Your task to perform on an android device: toggle wifi Image 0: 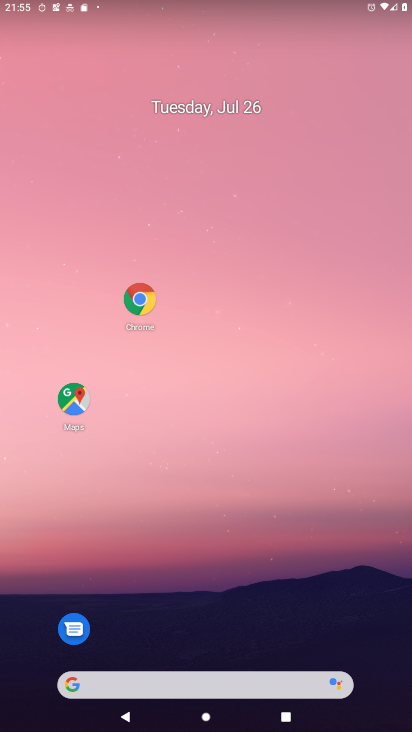
Step 0: click (204, 97)
Your task to perform on an android device: toggle wifi Image 1: 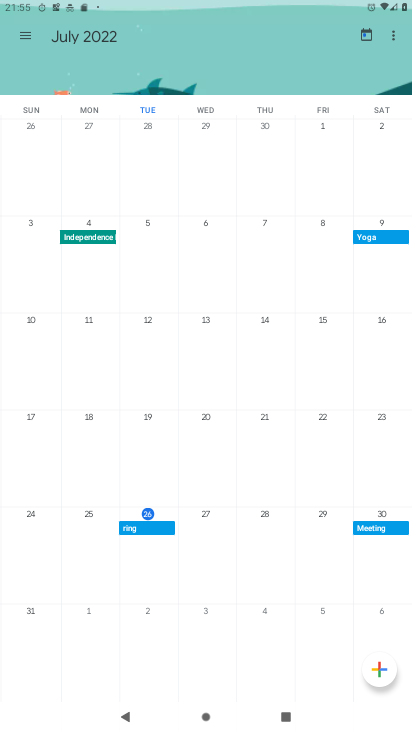
Step 1: drag from (136, 26) to (186, 71)
Your task to perform on an android device: toggle wifi Image 2: 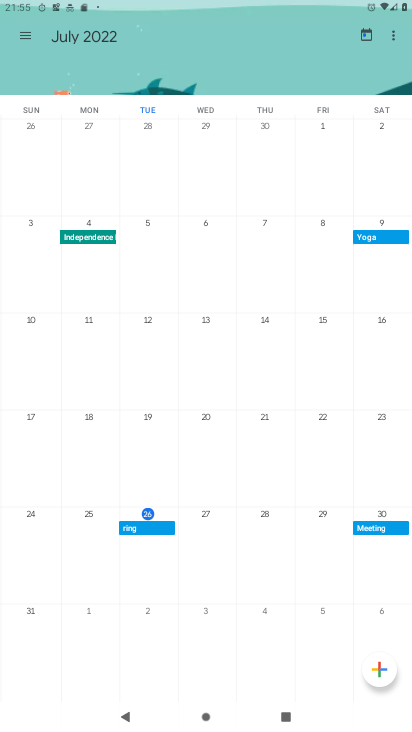
Step 2: press back button
Your task to perform on an android device: toggle wifi Image 3: 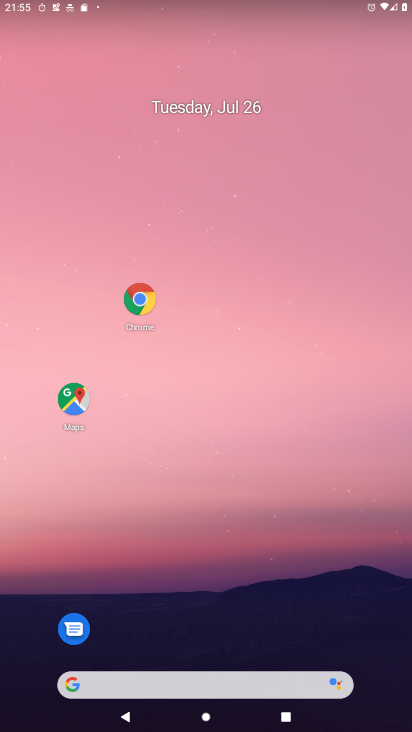
Step 3: press home button
Your task to perform on an android device: toggle wifi Image 4: 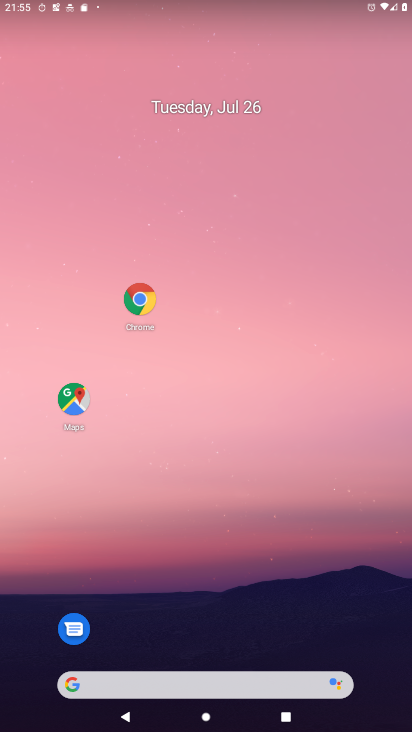
Step 4: click (113, 114)
Your task to perform on an android device: toggle wifi Image 5: 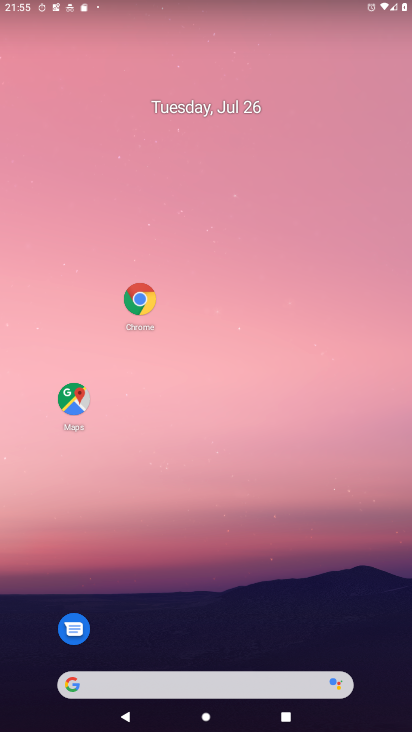
Step 5: drag from (184, 77) to (187, 216)
Your task to perform on an android device: toggle wifi Image 6: 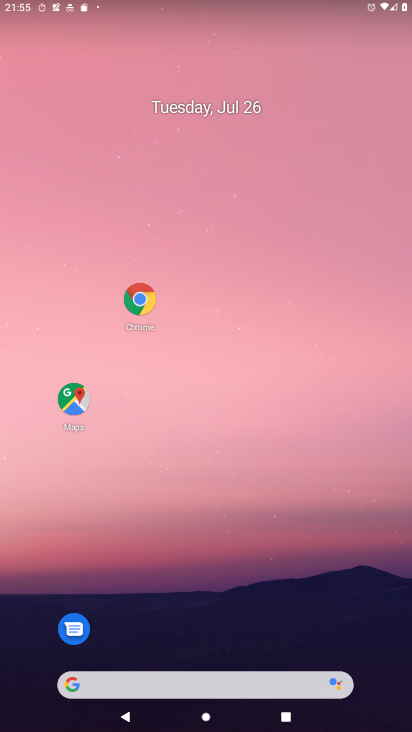
Step 6: drag from (225, 419) to (175, 57)
Your task to perform on an android device: toggle wifi Image 7: 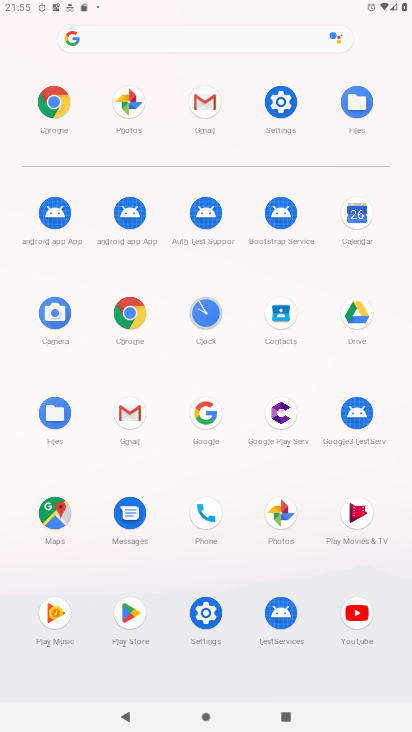
Step 7: click (199, 0)
Your task to perform on an android device: toggle wifi Image 8: 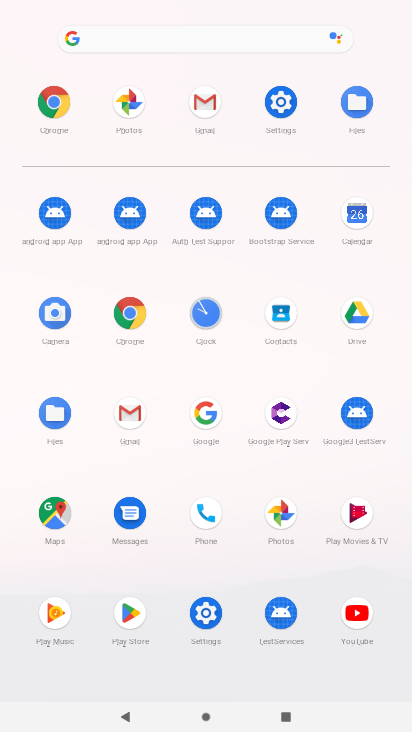
Step 8: click (178, 378)
Your task to perform on an android device: toggle wifi Image 9: 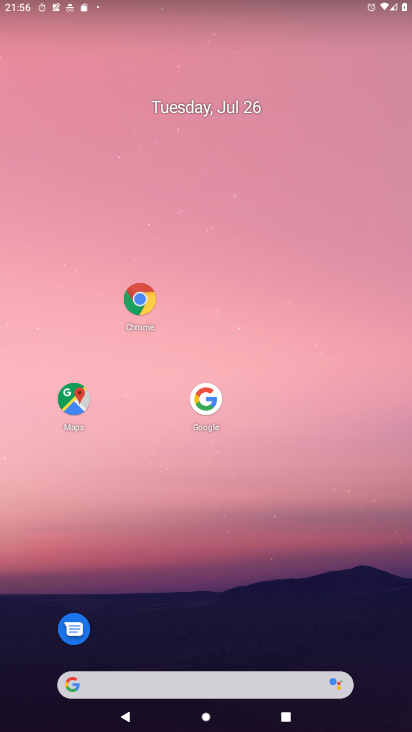
Step 9: drag from (235, 5) to (192, 8)
Your task to perform on an android device: toggle wifi Image 10: 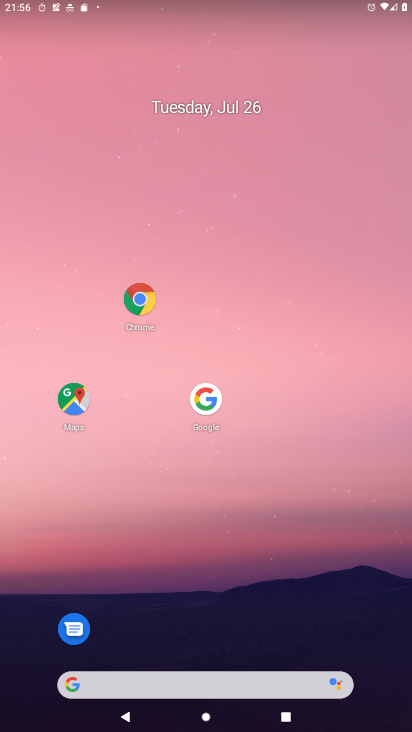
Step 10: press back button
Your task to perform on an android device: toggle wifi Image 11: 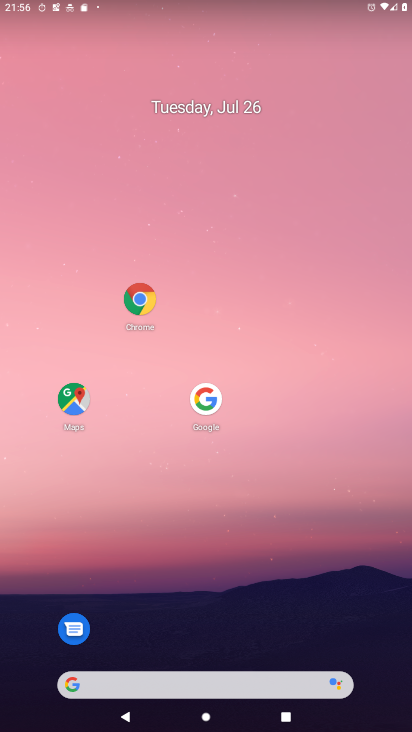
Step 11: drag from (196, 71) to (145, 58)
Your task to perform on an android device: toggle wifi Image 12: 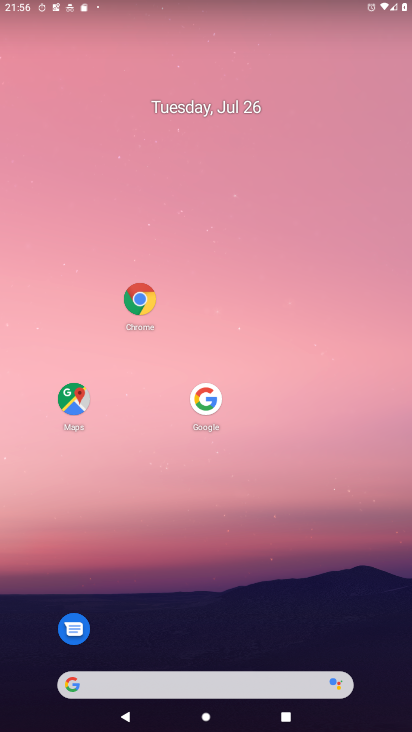
Step 12: drag from (259, 415) to (216, 13)
Your task to perform on an android device: toggle wifi Image 13: 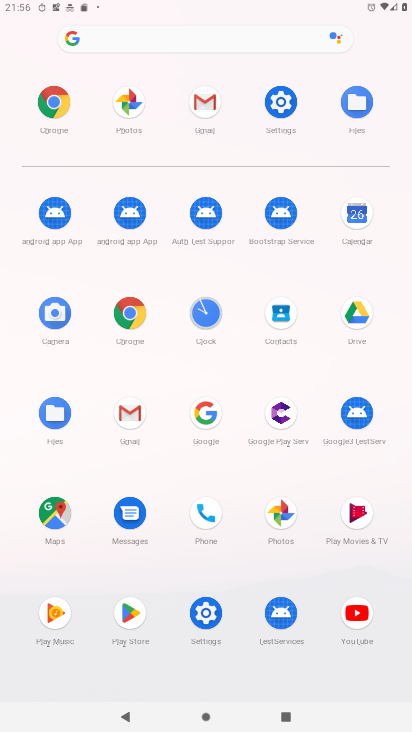
Step 13: click (248, 20)
Your task to perform on an android device: toggle wifi Image 14: 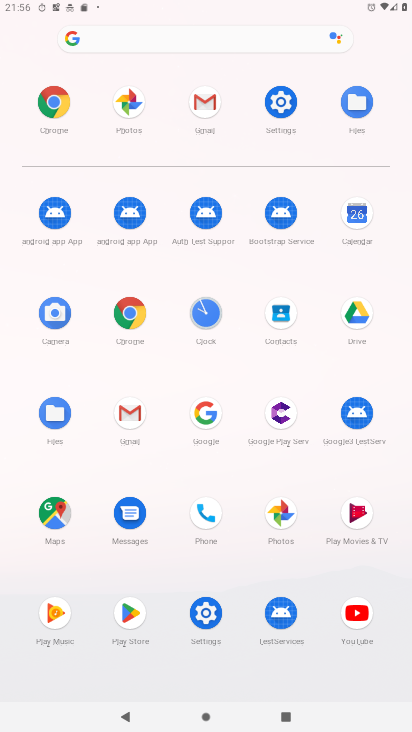
Step 14: click (206, 52)
Your task to perform on an android device: toggle wifi Image 15: 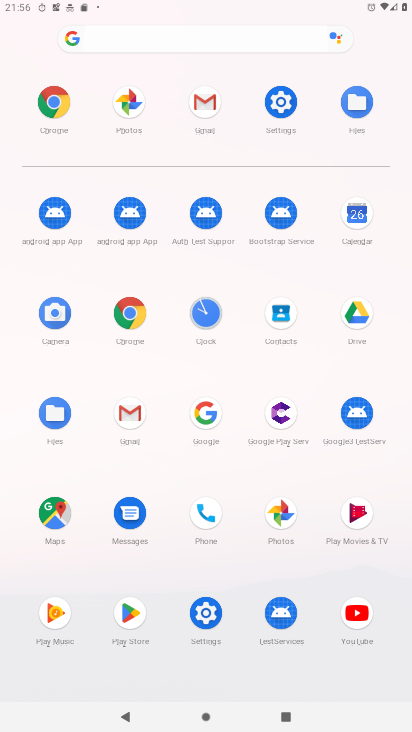
Step 15: drag from (189, 450) to (201, 0)
Your task to perform on an android device: toggle wifi Image 16: 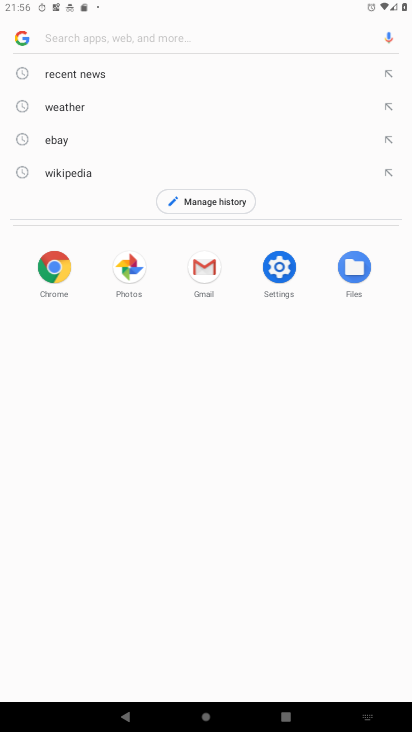
Step 16: press back button
Your task to perform on an android device: toggle wifi Image 17: 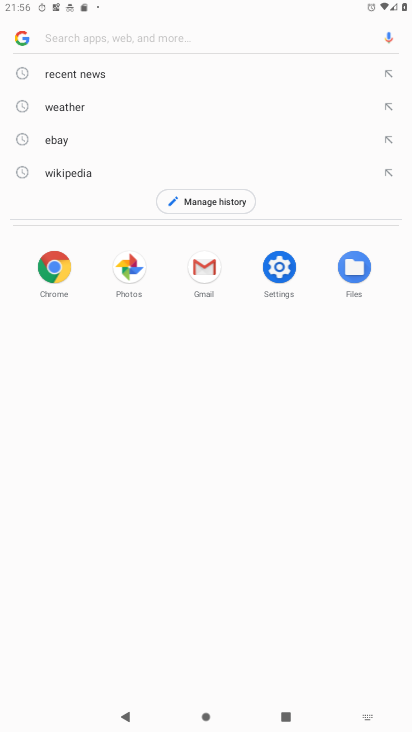
Step 17: press back button
Your task to perform on an android device: toggle wifi Image 18: 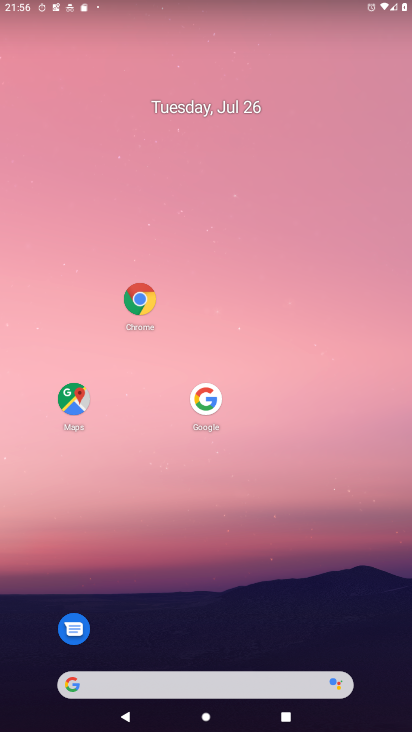
Step 18: press back button
Your task to perform on an android device: toggle wifi Image 19: 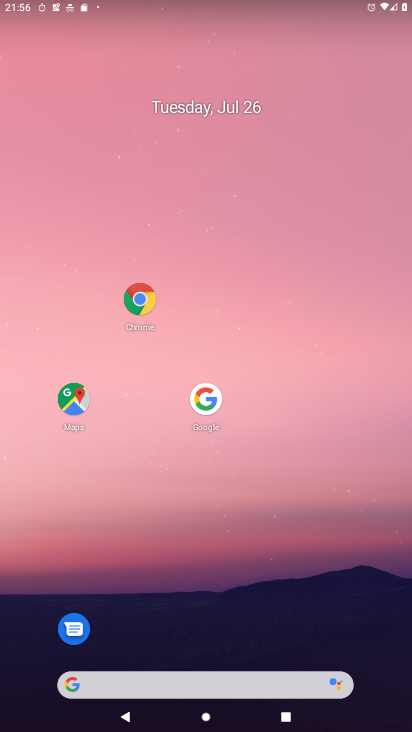
Step 19: press back button
Your task to perform on an android device: toggle wifi Image 20: 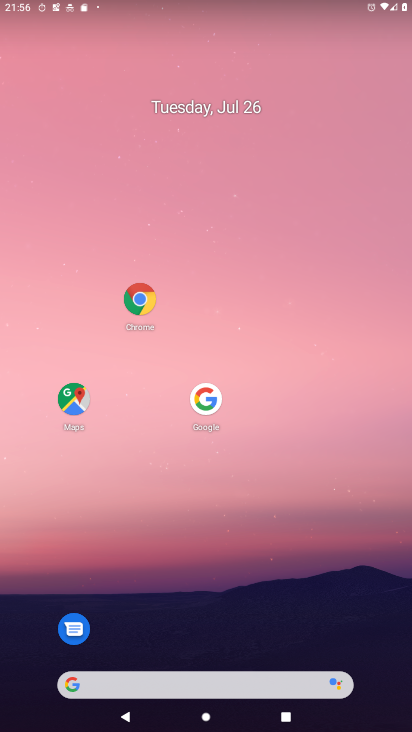
Step 20: drag from (271, 382) to (254, 14)
Your task to perform on an android device: toggle wifi Image 21: 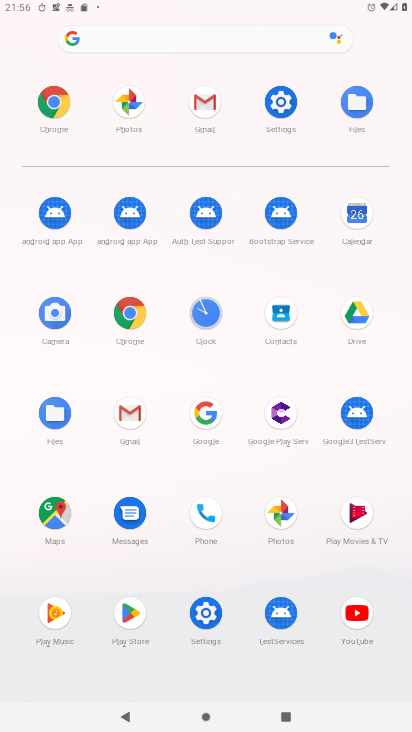
Step 21: drag from (282, 397) to (200, 7)
Your task to perform on an android device: toggle wifi Image 22: 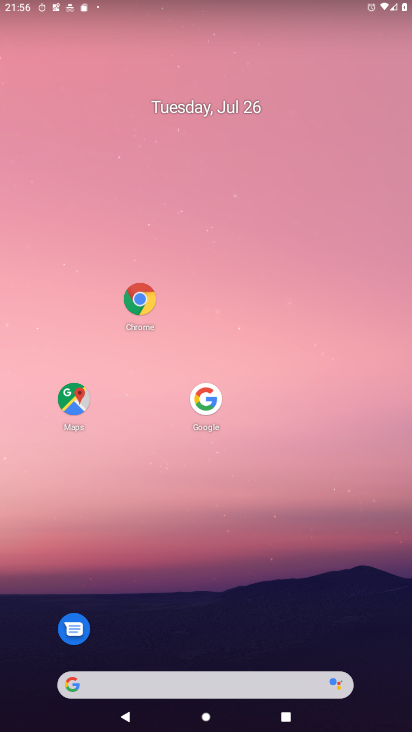
Step 22: drag from (190, 275) to (162, 90)
Your task to perform on an android device: toggle wifi Image 23: 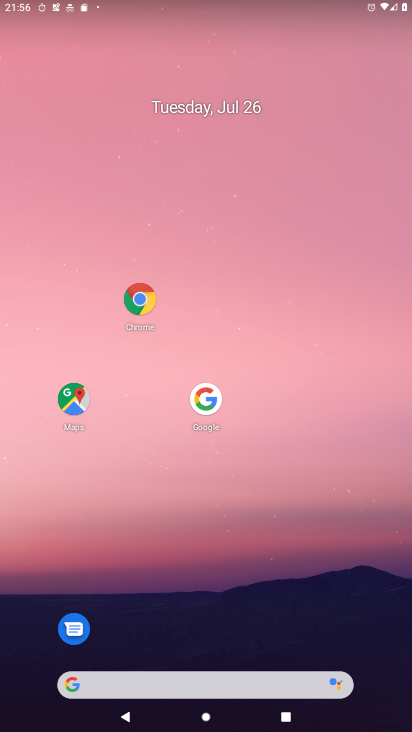
Step 23: drag from (194, 428) to (142, 168)
Your task to perform on an android device: toggle wifi Image 24: 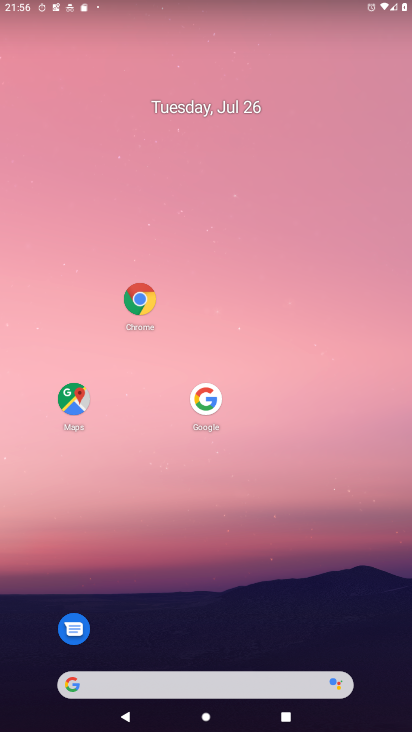
Step 24: drag from (240, 449) to (140, 23)
Your task to perform on an android device: toggle wifi Image 25: 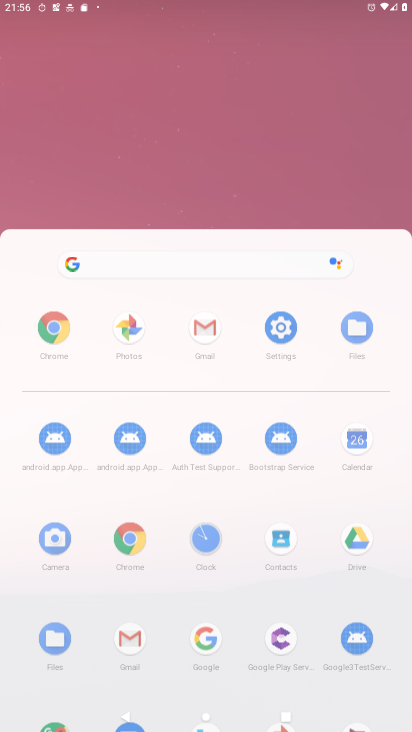
Step 25: drag from (192, 414) to (188, 144)
Your task to perform on an android device: toggle wifi Image 26: 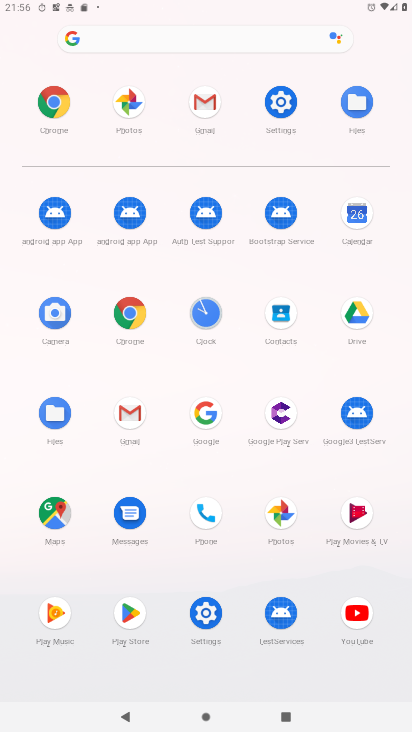
Step 26: click (281, 103)
Your task to perform on an android device: toggle wifi Image 27: 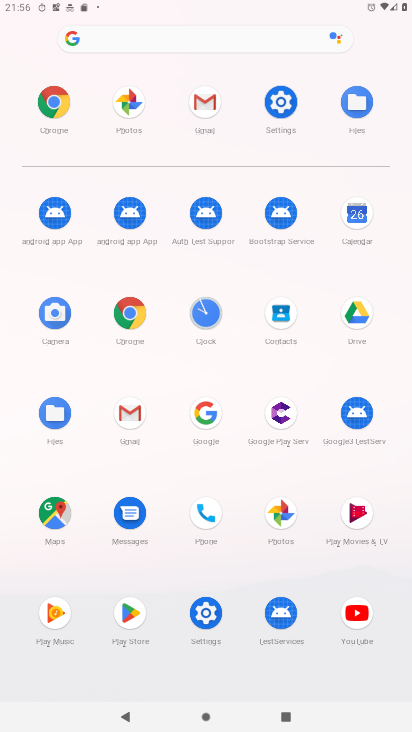
Step 27: click (281, 104)
Your task to perform on an android device: toggle wifi Image 28: 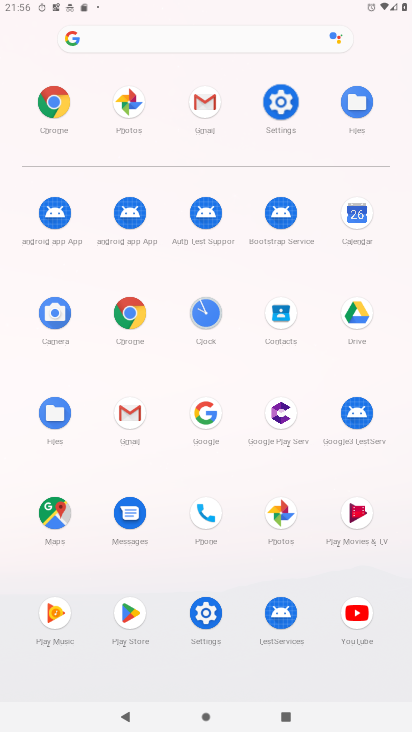
Step 28: click (281, 104)
Your task to perform on an android device: toggle wifi Image 29: 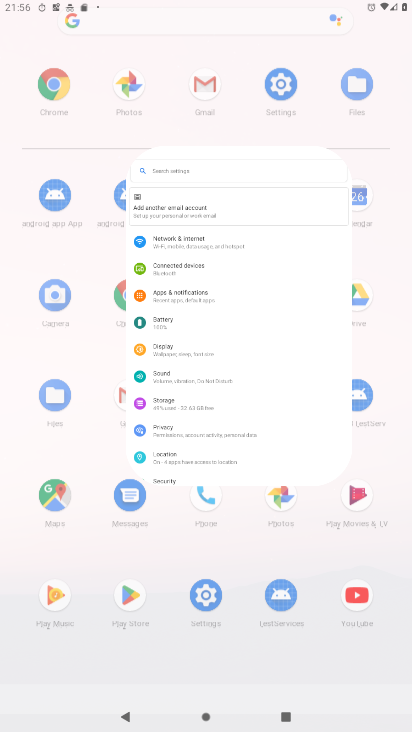
Step 29: click (281, 104)
Your task to perform on an android device: toggle wifi Image 30: 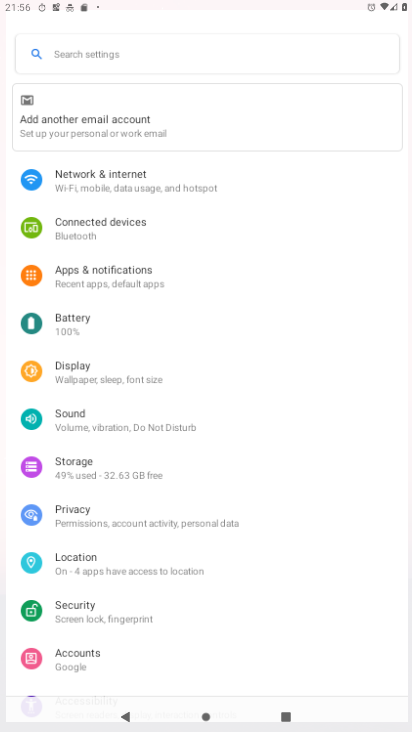
Step 30: click (283, 106)
Your task to perform on an android device: toggle wifi Image 31: 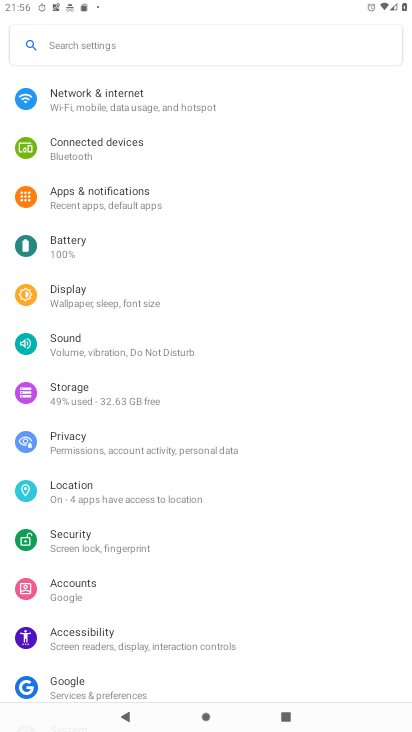
Step 31: click (287, 107)
Your task to perform on an android device: toggle wifi Image 32: 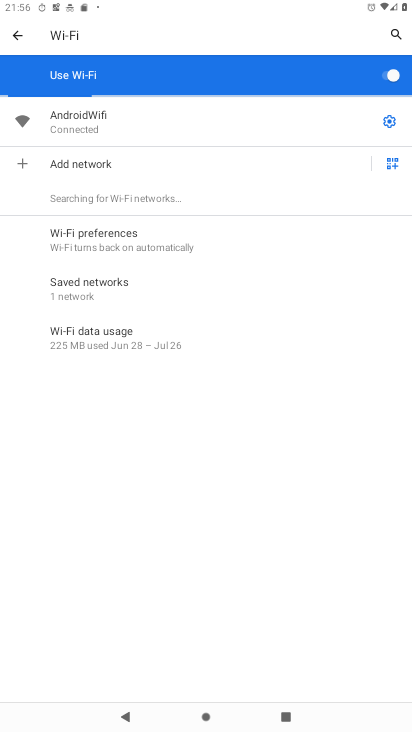
Step 32: click (384, 72)
Your task to perform on an android device: toggle wifi Image 33: 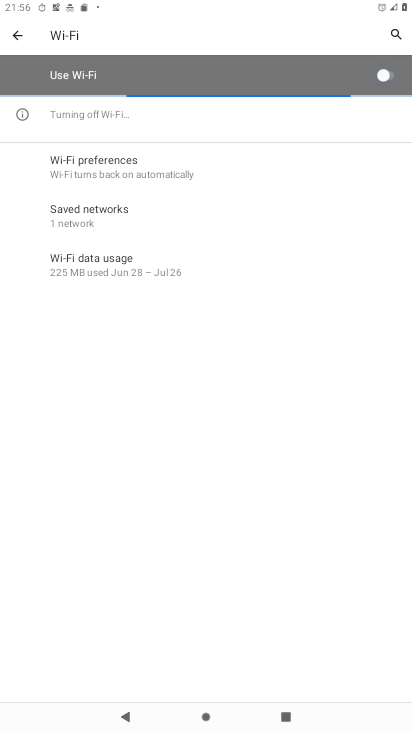
Step 33: click (387, 77)
Your task to perform on an android device: toggle wifi Image 34: 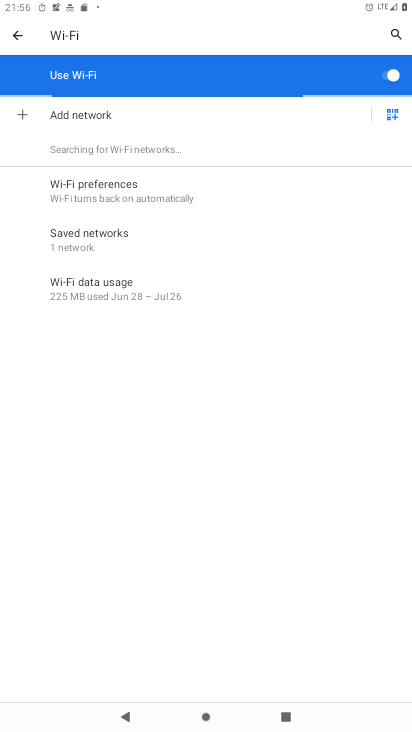
Step 34: click (399, 73)
Your task to perform on an android device: toggle wifi Image 35: 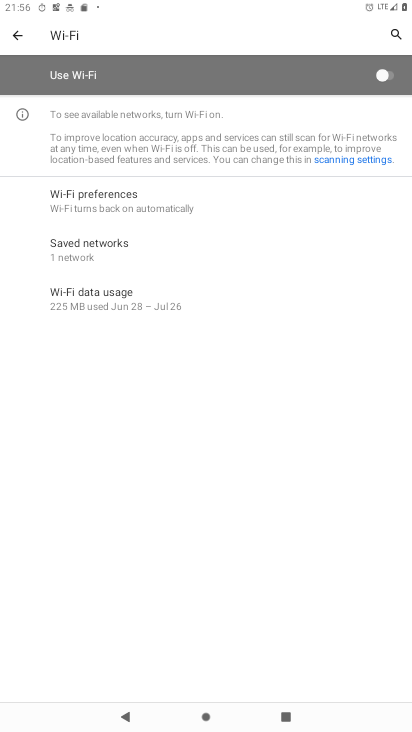
Step 35: task complete